Your task to perform on an android device: What's on my calendar today? Image 0: 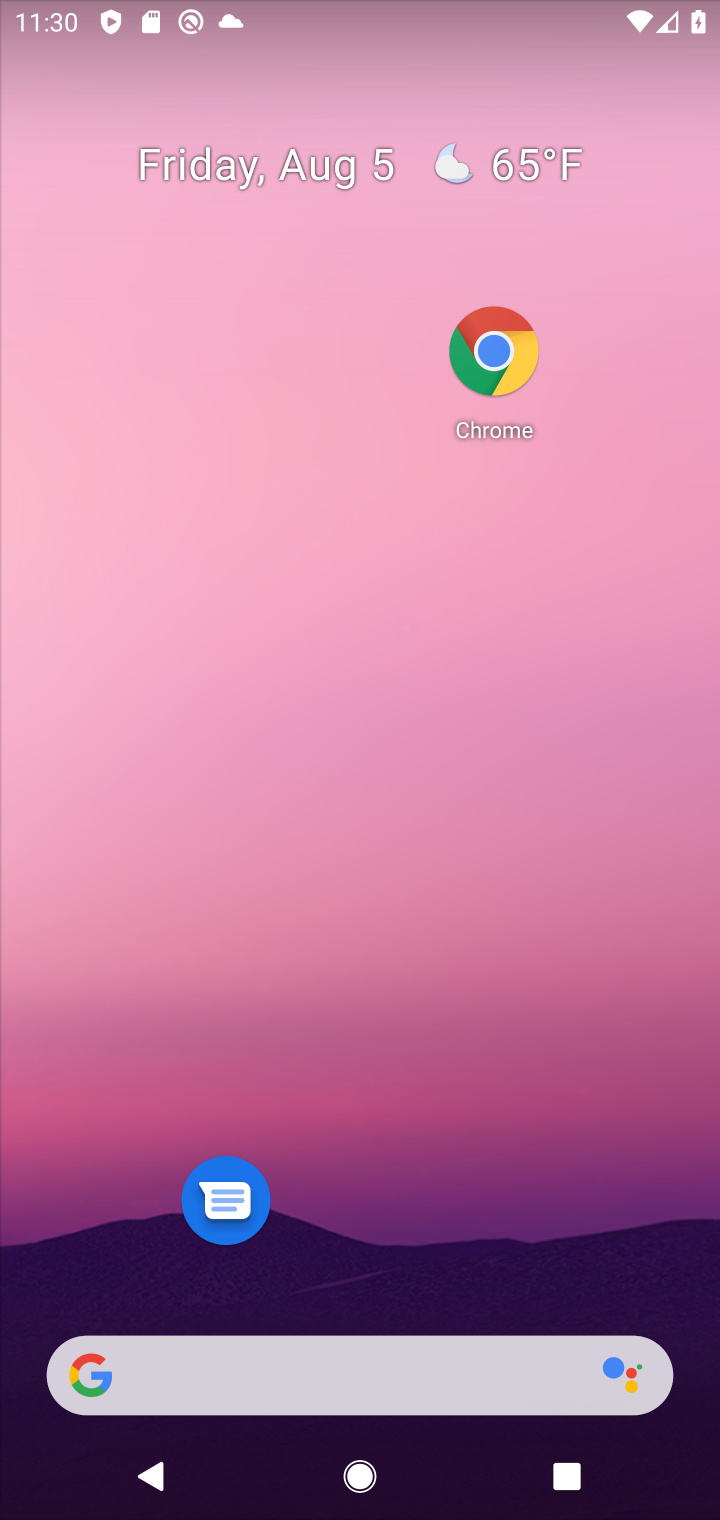
Step 0: drag from (533, 975) to (471, 107)
Your task to perform on an android device: What's on my calendar today? Image 1: 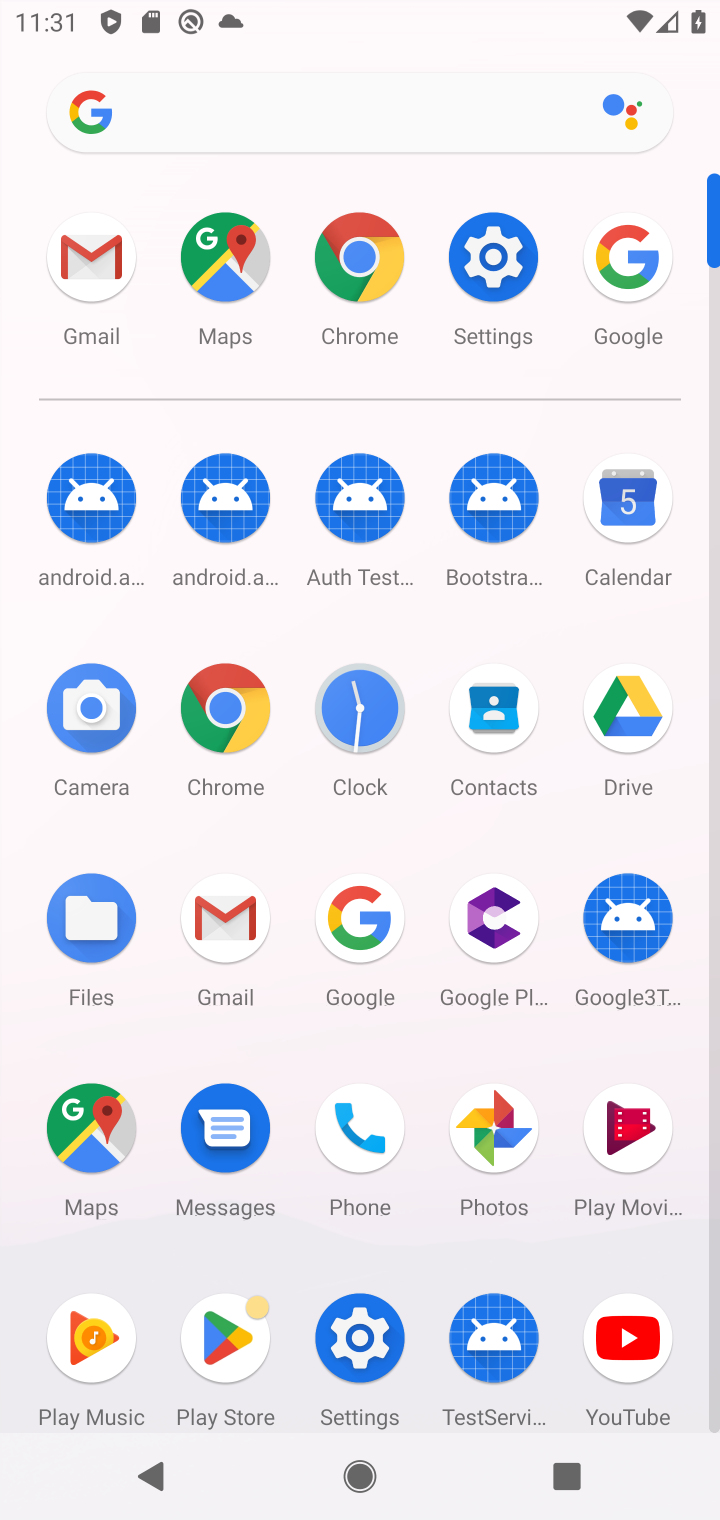
Step 1: click (660, 523)
Your task to perform on an android device: What's on my calendar today? Image 2: 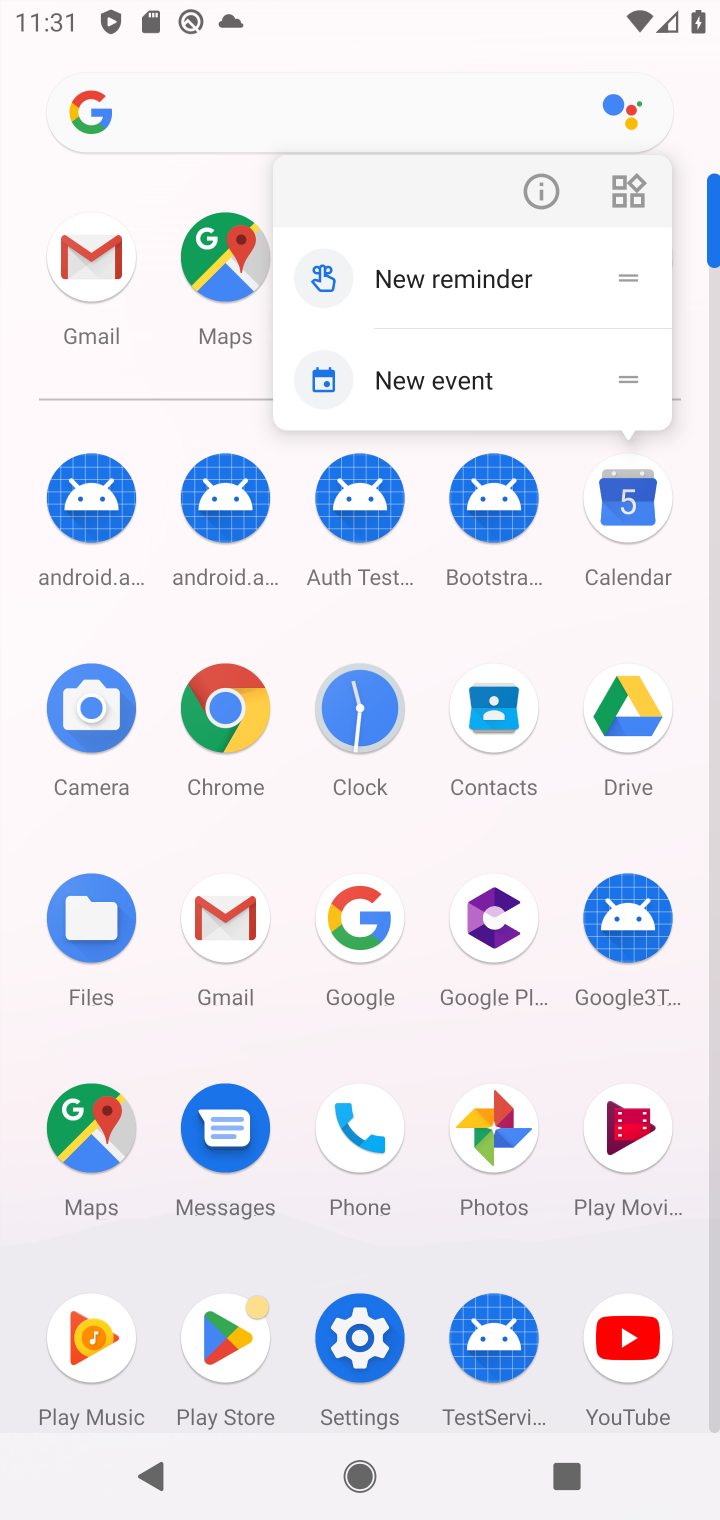
Step 2: click (660, 523)
Your task to perform on an android device: What's on my calendar today? Image 3: 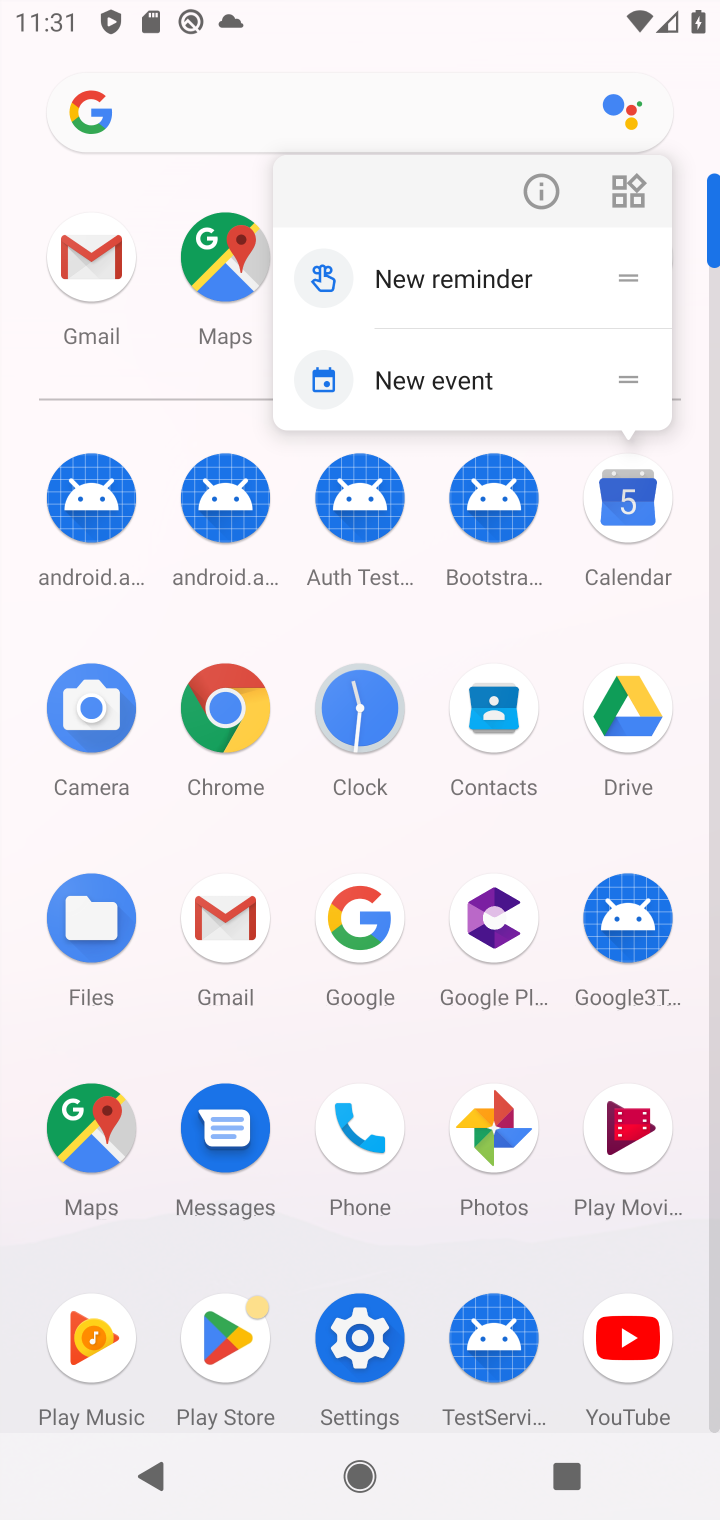
Step 3: click (635, 550)
Your task to perform on an android device: What's on my calendar today? Image 4: 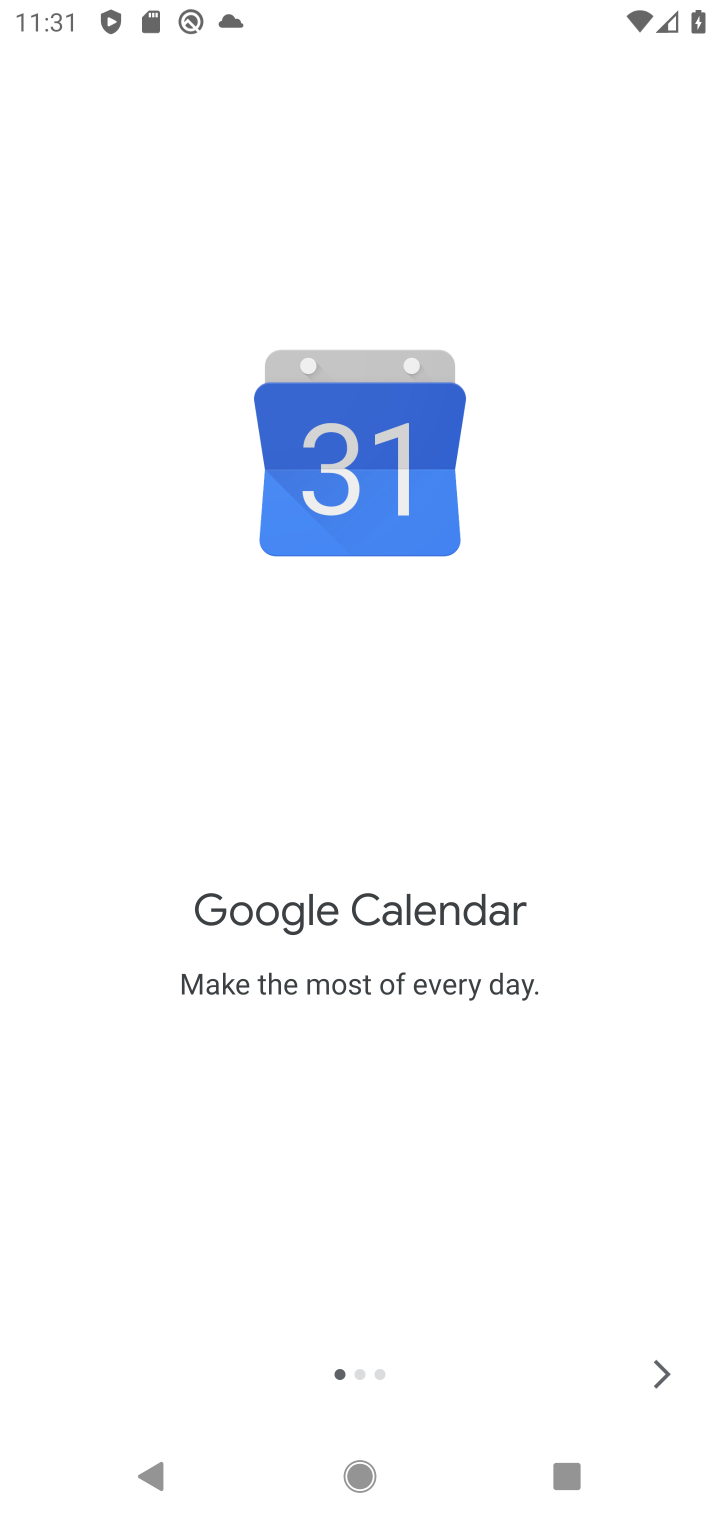
Step 4: click (669, 1400)
Your task to perform on an android device: What's on my calendar today? Image 5: 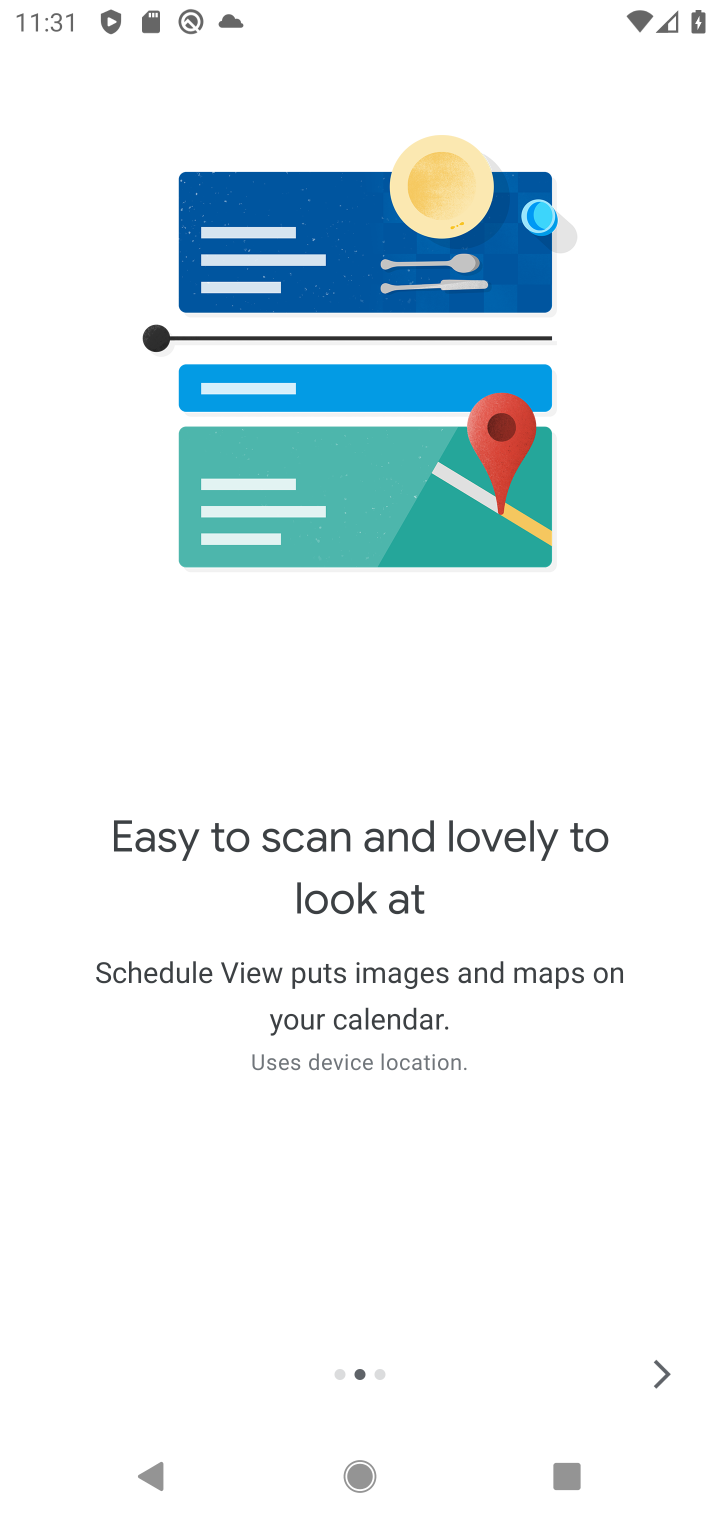
Step 5: click (646, 1362)
Your task to perform on an android device: What's on my calendar today? Image 6: 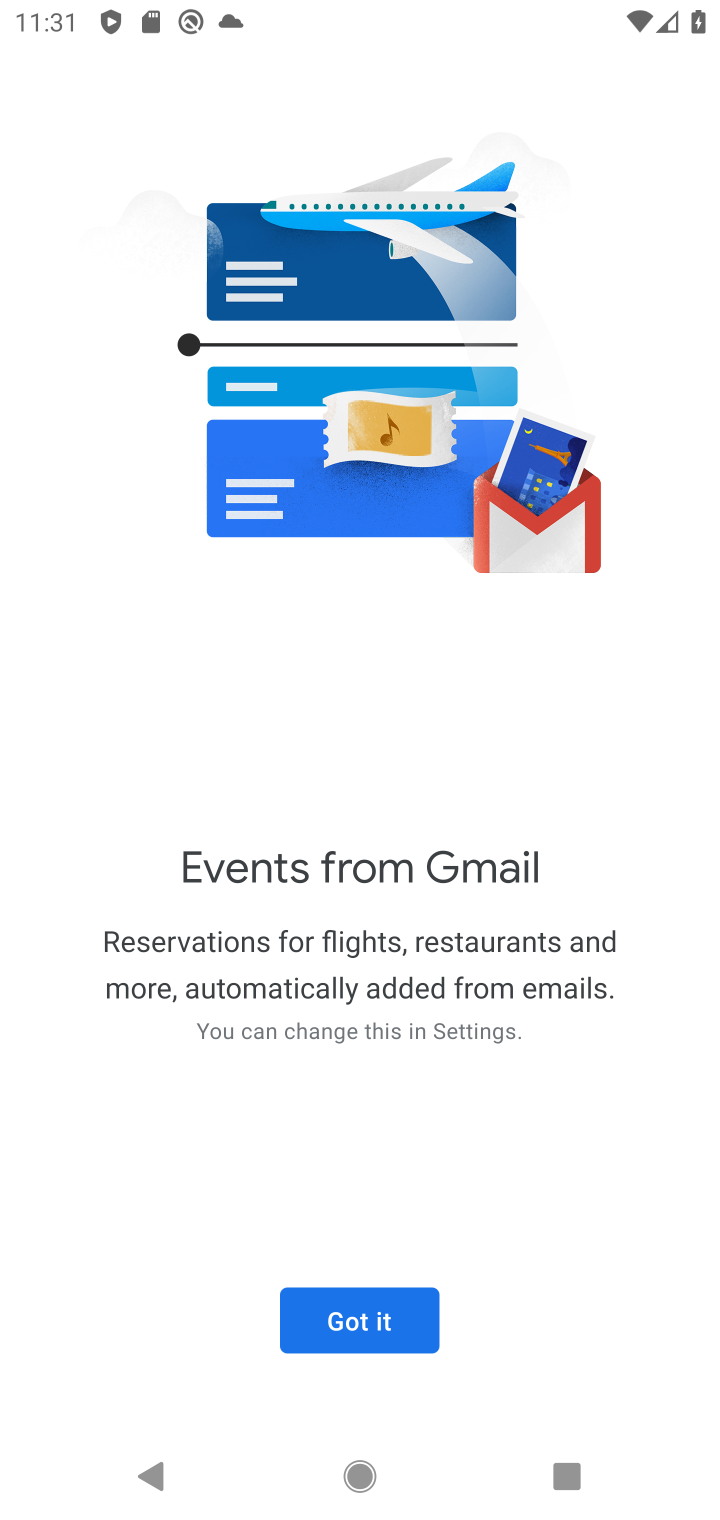
Step 6: click (341, 1334)
Your task to perform on an android device: What's on my calendar today? Image 7: 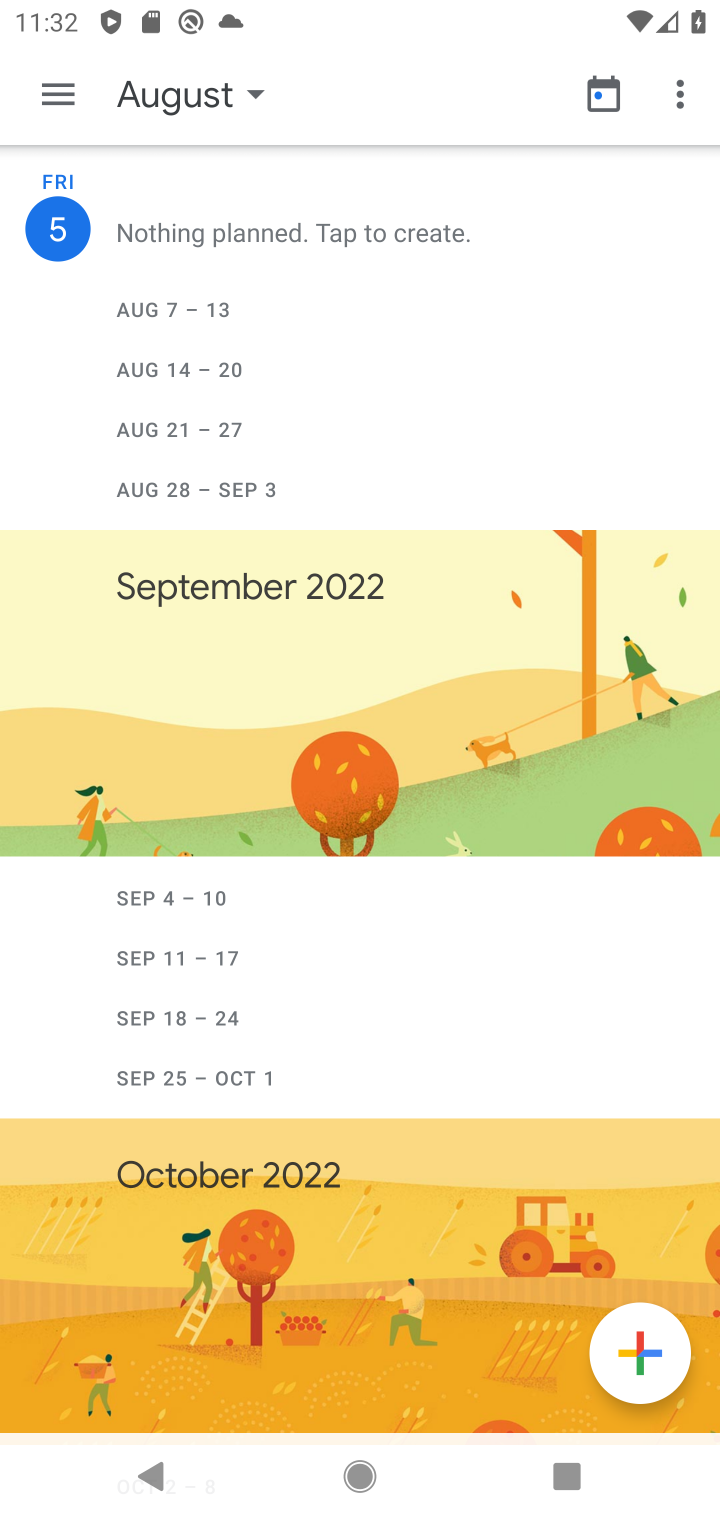
Step 7: task complete